Your task to perform on an android device: Go to calendar. Show me events next week Image 0: 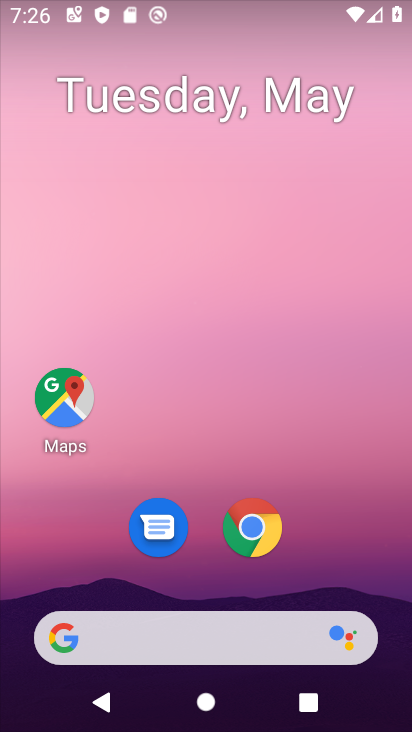
Step 0: drag from (333, 573) to (282, 141)
Your task to perform on an android device: Go to calendar. Show me events next week Image 1: 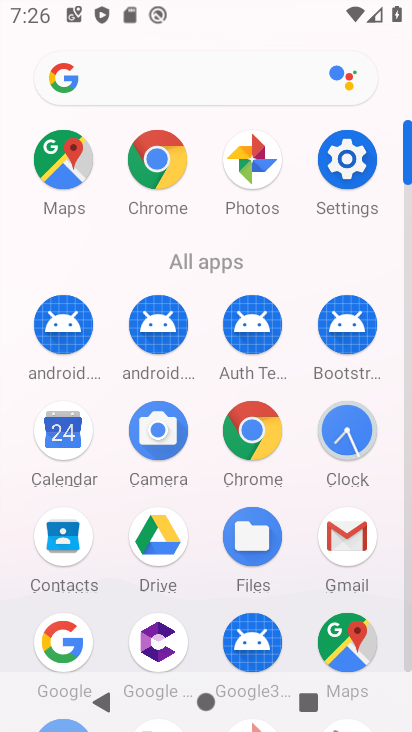
Step 1: click (67, 436)
Your task to perform on an android device: Go to calendar. Show me events next week Image 2: 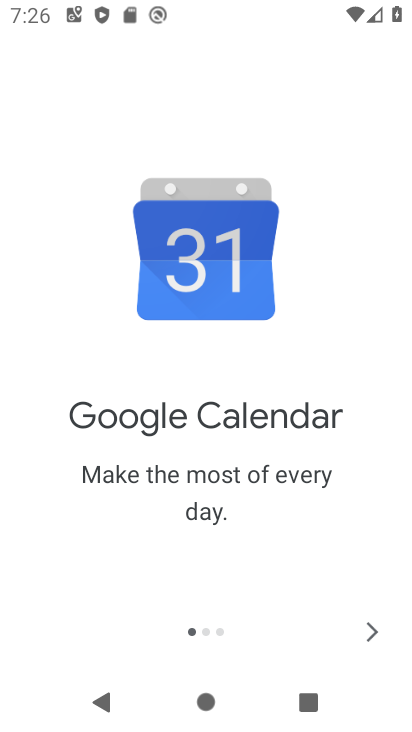
Step 2: click (375, 629)
Your task to perform on an android device: Go to calendar. Show me events next week Image 3: 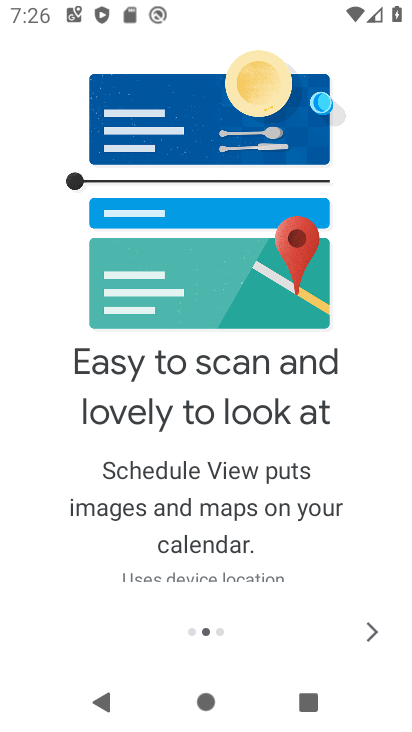
Step 3: click (375, 629)
Your task to perform on an android device: Go to calendar. Show me events next week Image 4: 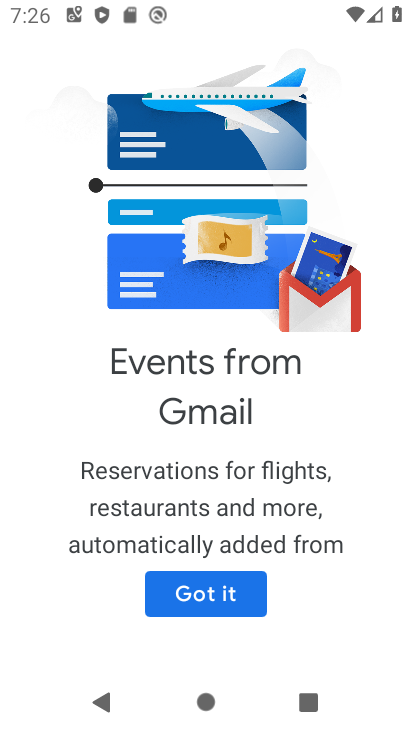
Step 4: click (231, 602)
Your task to perform on an android device: Go to calendar. Show me events next week Image 5: 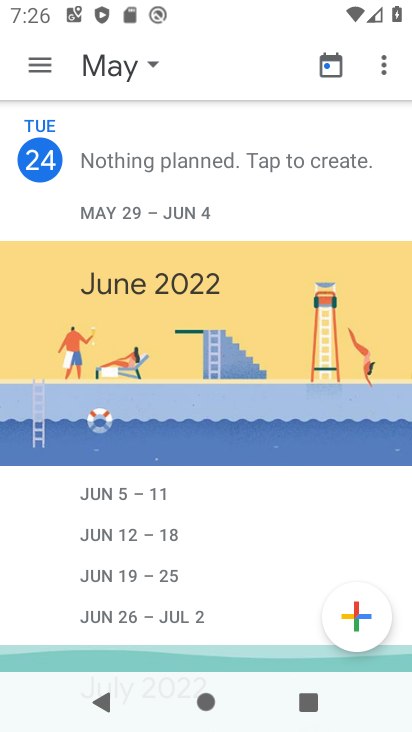
Step 5: click (148, 61)
Your task to perform on an android device: Go to calendar. Show me events next week Image 6: 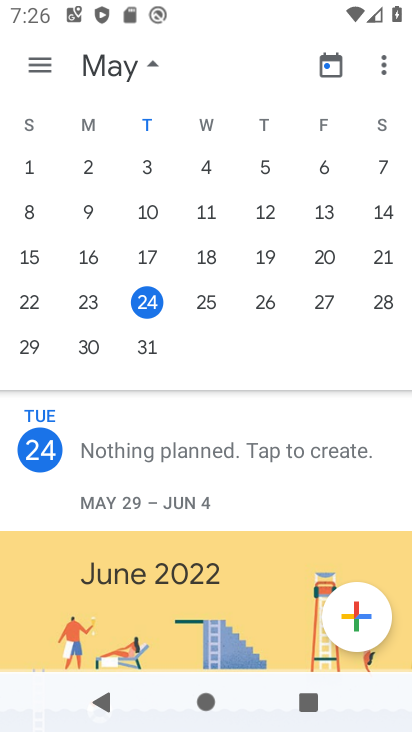
Step 6: click (88, 340)
Your task to perform on an android device: Go to calendar. Show me events next week Image 7: 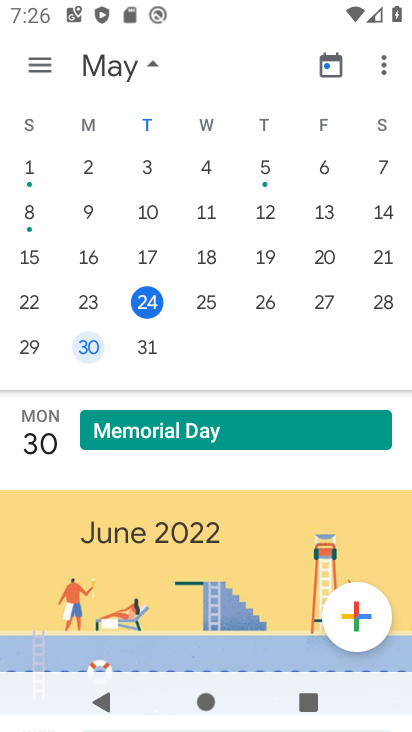
Step 7: click (41, 67)
Your task to perform on an android device: Go to calendar. Show me events next week Image 8: 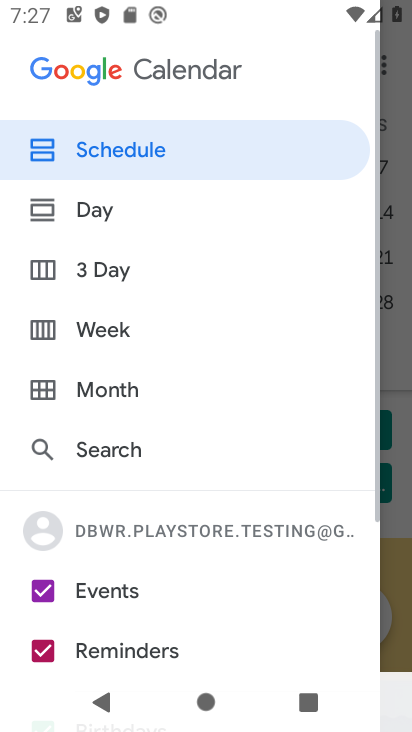
Step 8: click (95, 331)
Your task to perform on an android device: Go to calendar. Show me events next week Image 9: 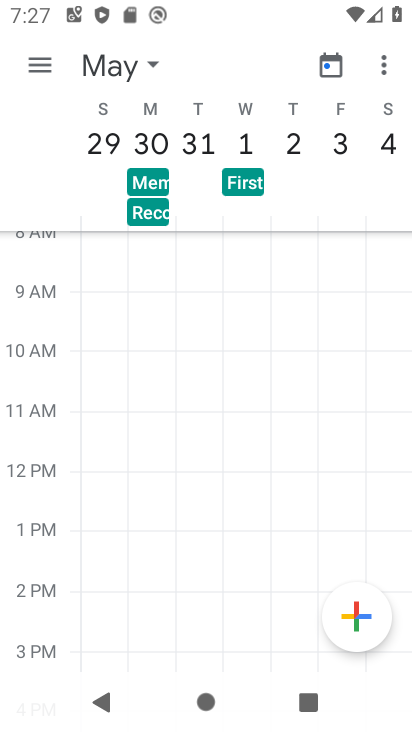
Step 9: task complete